Your task to perform on an android device: Open Google Chrome Image 0: 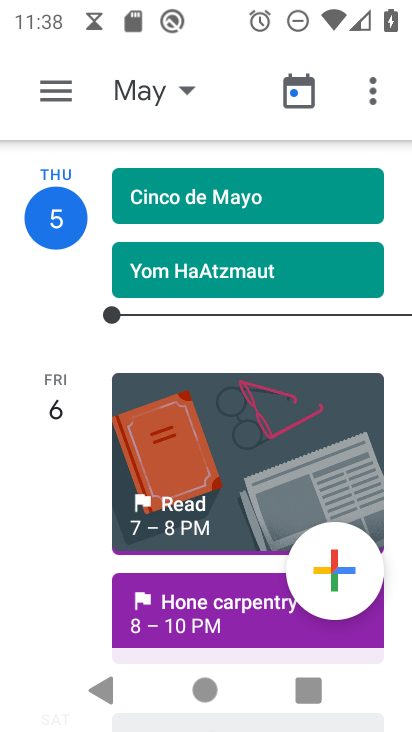
Step 0: press home button
Your task to perform on an android device: Open Google Chrome Image 1: 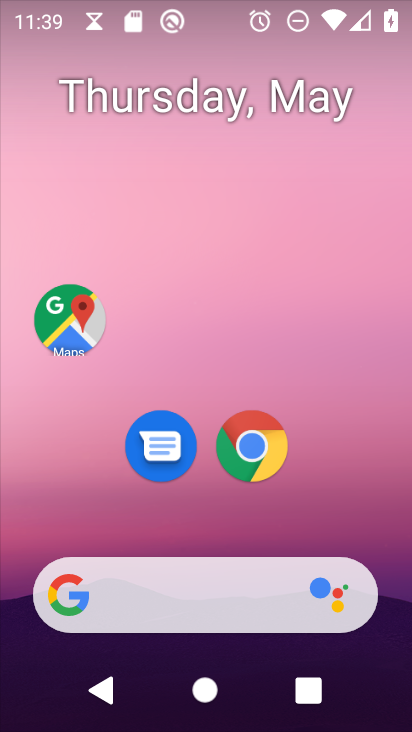
Step 1: drag from (276, 637) to (210, 259)
Your task to perform on an android device: Open Google Chrome Image 2: 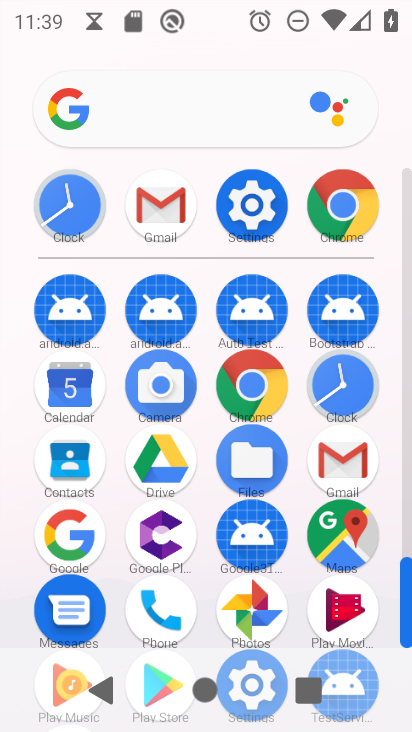
Step 2: click (364, 218)
Your task to perform on an android device: Open Google Chrome Image 3: 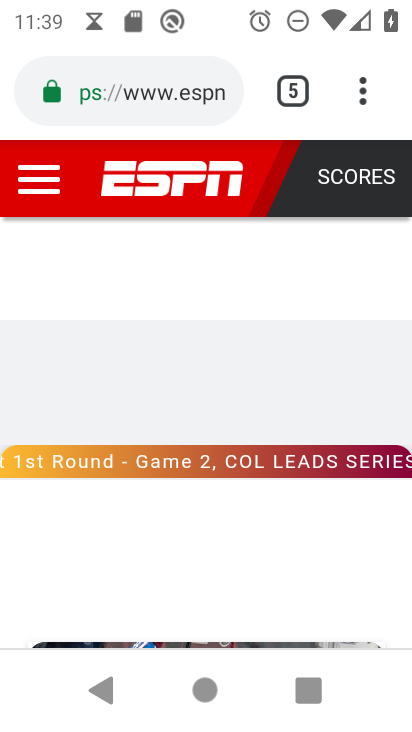
Step 3: click (363, 93)
Your task to perform on an android device: Open Google Chrome Image 4: 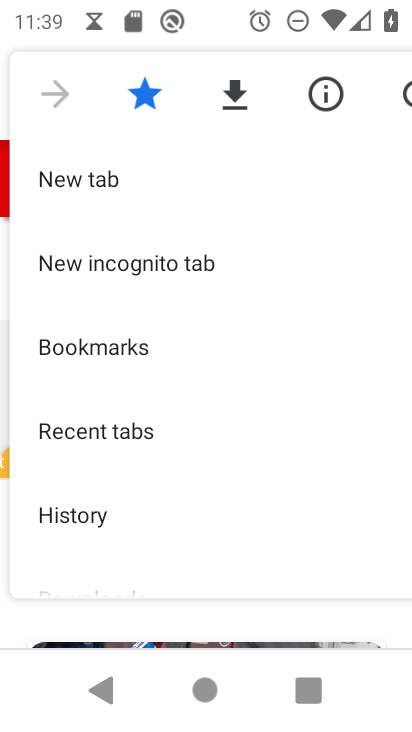
Step 4: click (141, 180)
Your task to perform on an android device: Open Google Chrome Image 5: 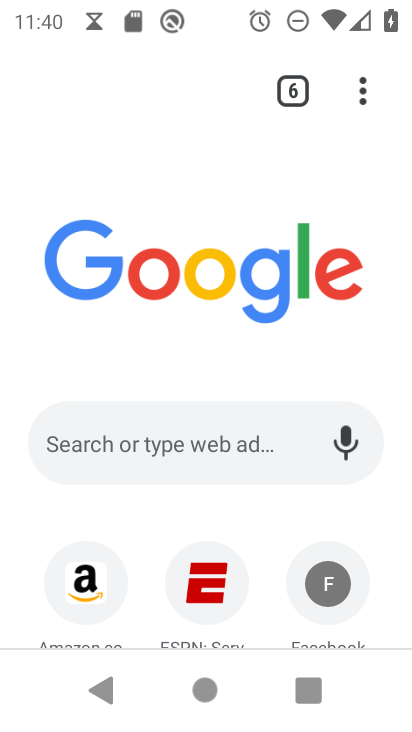
Step 5: task complete